Your task to perform on an android device: clear all cookies in the chrome app Image 0: 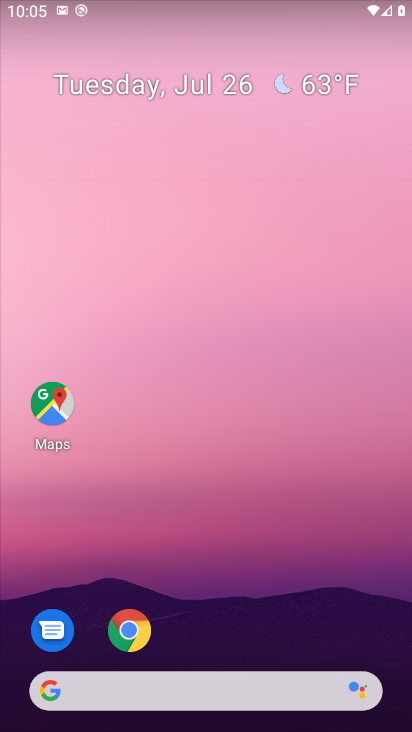
Step 0: press home button
Your task to perform on an android device: clear all cookies in the chrome app Image 1: 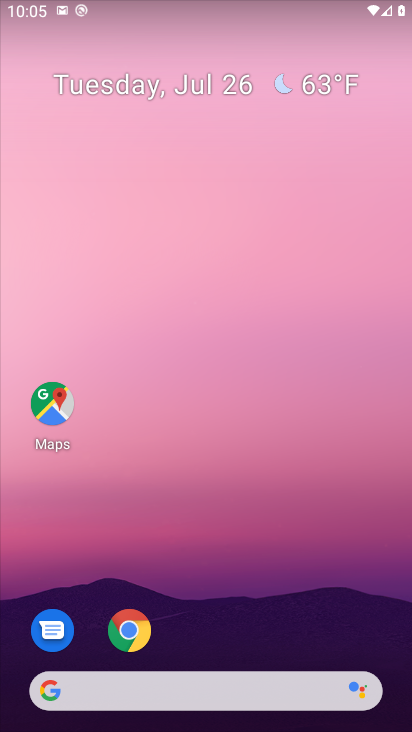
Step 1: click (126, 630)
Your task to perform on an android device: clear all cookies in the chrome app Image 2: 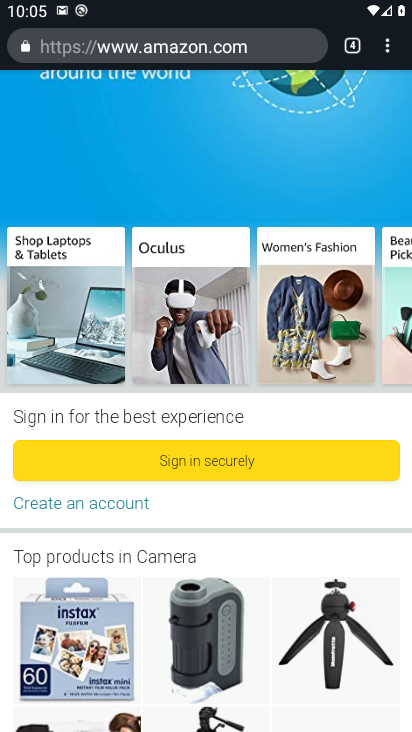
Step 2: click (388, 42)
Your task to perform on an android device: clear all cookies in the chrome app Image 3: 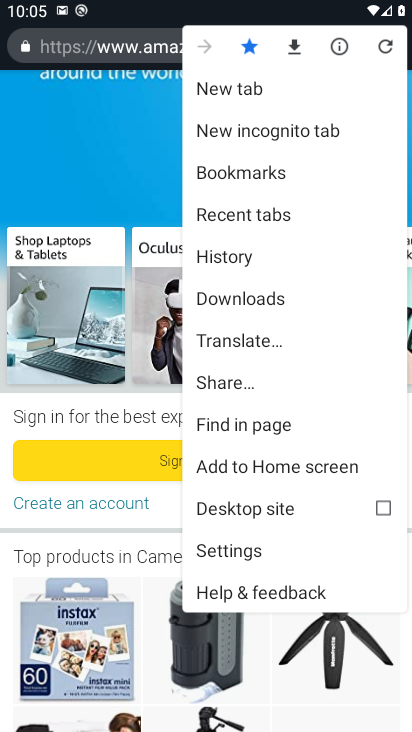
Step 3: click (246, 247)
Your task to perform on an android device: clear all cookies in the chrome app Image 4: 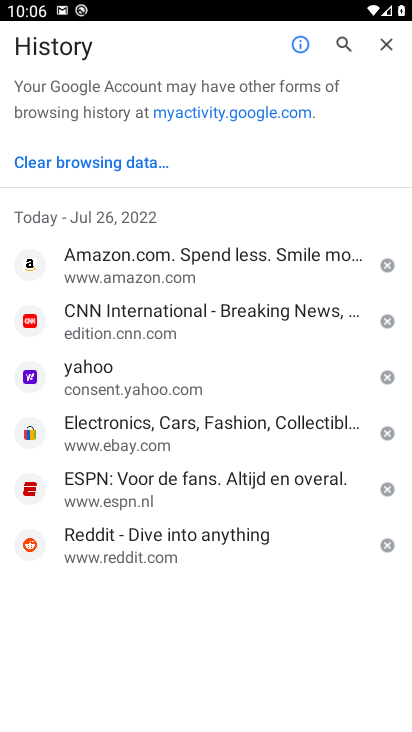
Step 4: click (72, 166)
Your task to perform on an android device: clear all cookies in the chrome app Image 5: 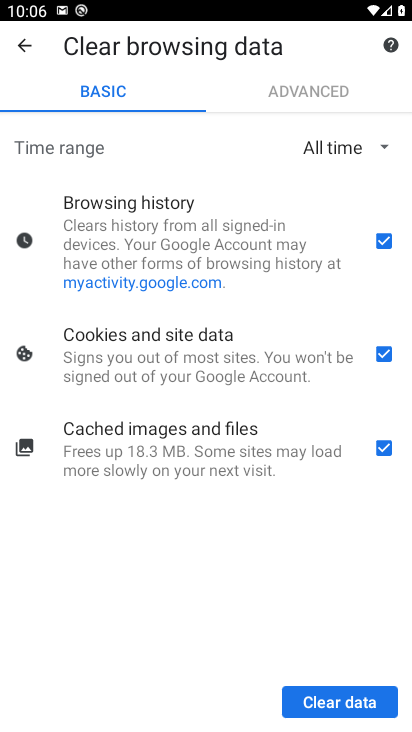
Step 5: click (376, 240)
Your task to perform on an android device: clear all cookies in the chrome app Image 6: 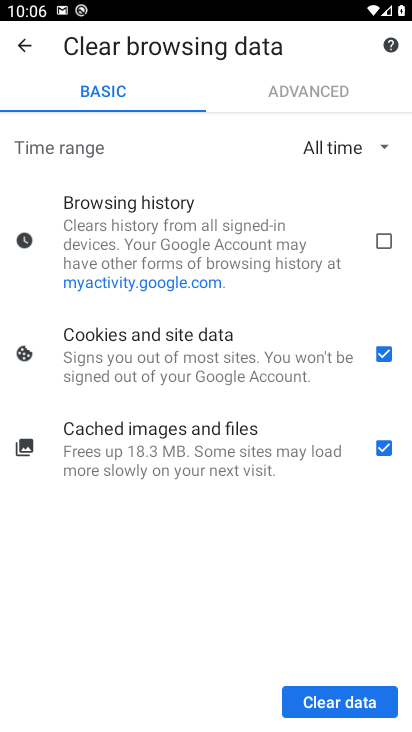
Step 6: click (379, 445)
Your task to perform on an android device: clear all cookies in the chrome app Image 7: 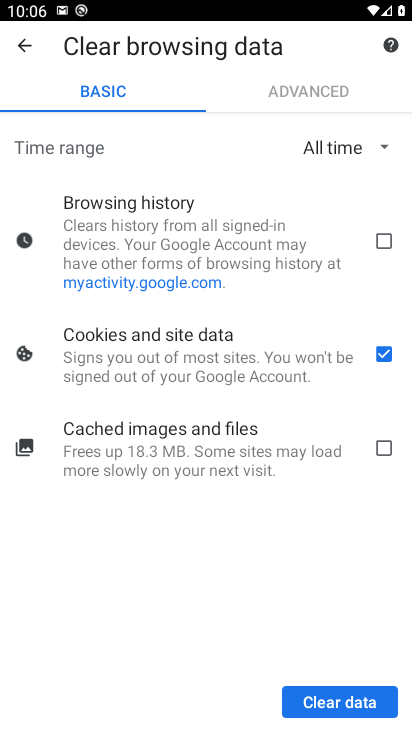
Step 7: click (350, 692)
Your task to perform on an android device: clear all cookies in the chrome app Image 8: 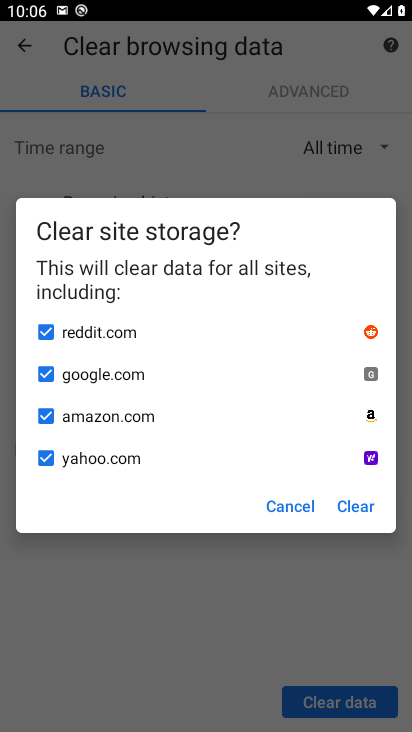
Step 8: click (357, 509)
Your task to perform on an android device: clear all cookies in the chrome app Image 9: 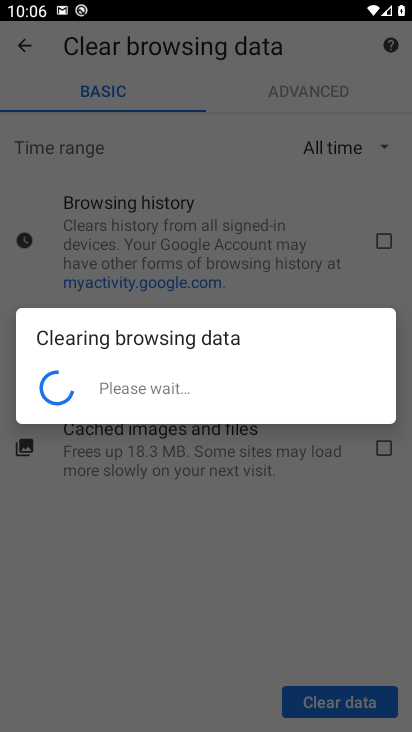
Step 9: task complete